Your task to perform on an android device: empty trash in google photos Image 0: 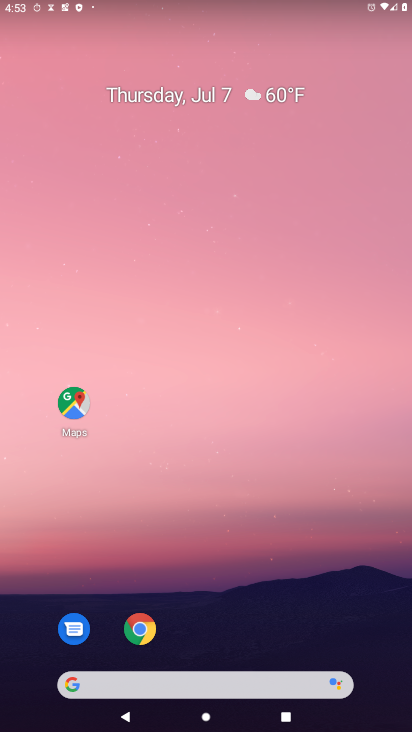
Step 0: drag from (192, 607) to (171, 112)
Your task to perform on an android device: empty trash in google photos Image 1: 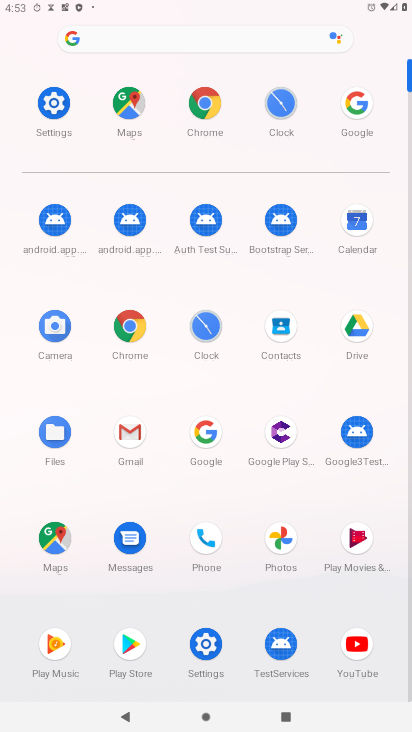
Step 1: click (279, 545)
Your task to perform on an android device: empty trash in google photos Image 2: 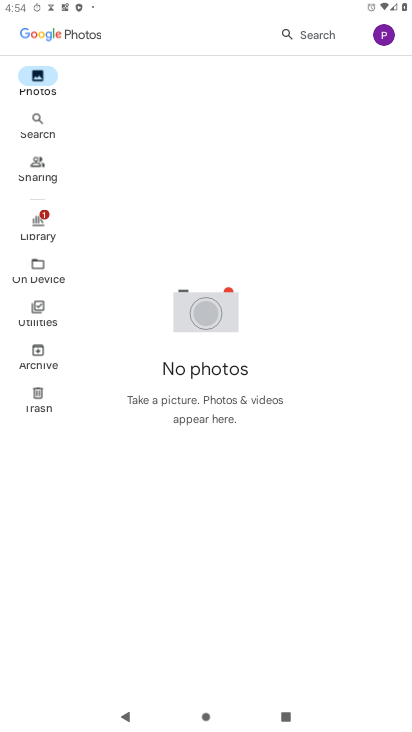
Step 2: click (40, 88)
Your task to perform on an android device: empty trash in google photos Image 3: 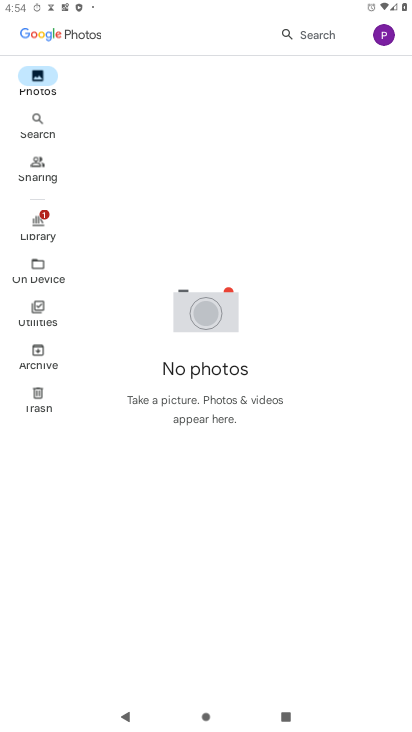
Step 3: click (40, 29)
Your task to perform on an android device: empty trash in google photos Image 4: 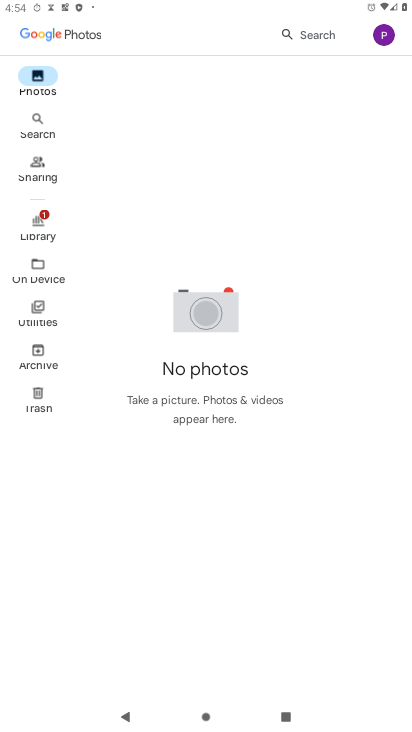
Step 4: click (32, 405)
Your task to perform on an android device: empty trash in google photos Image 5: 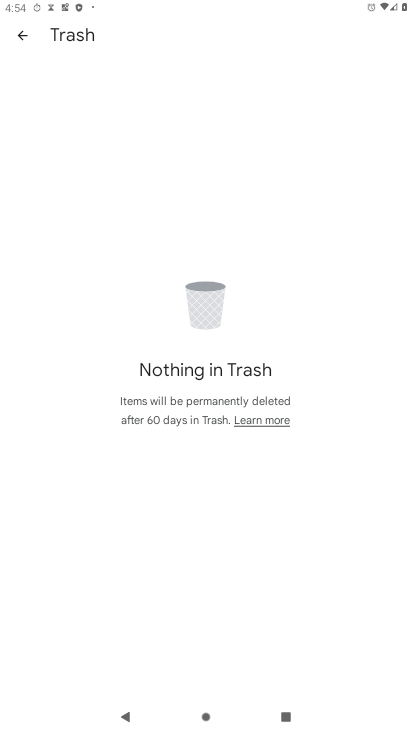
Step 5: task complete